Your task to perform on an android device: What's the weather going to be this weekend? Image 0: 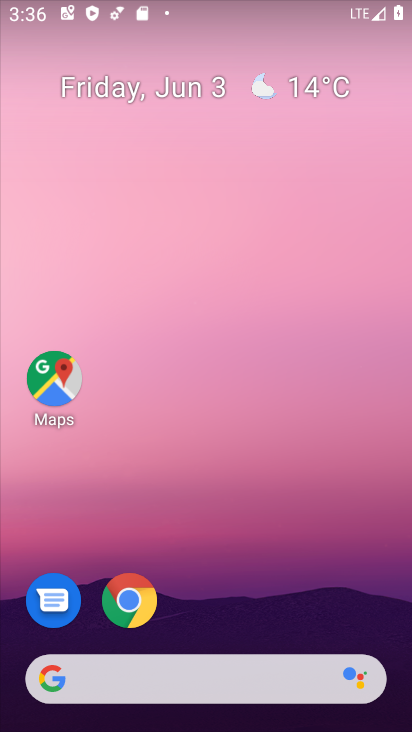
Step 0: drag from (29, 312) to (33, 271)
Your task to perform on an android device: What's the weather going to be this weekend? Image 1: 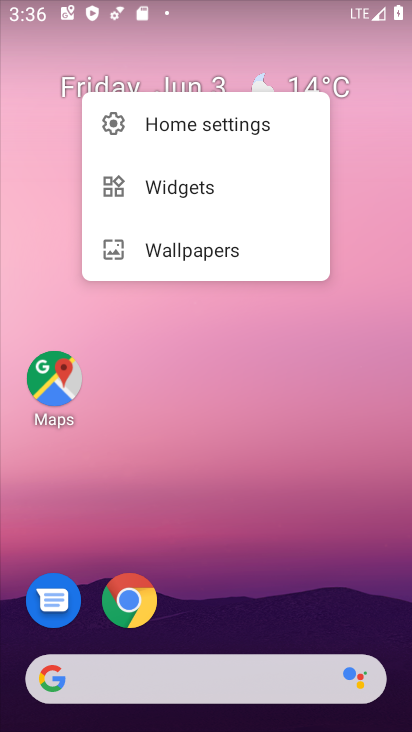
Step 1: click (335, 72)
Your task to perform on an android device: What's the weather going to be this weekend? Image 2: 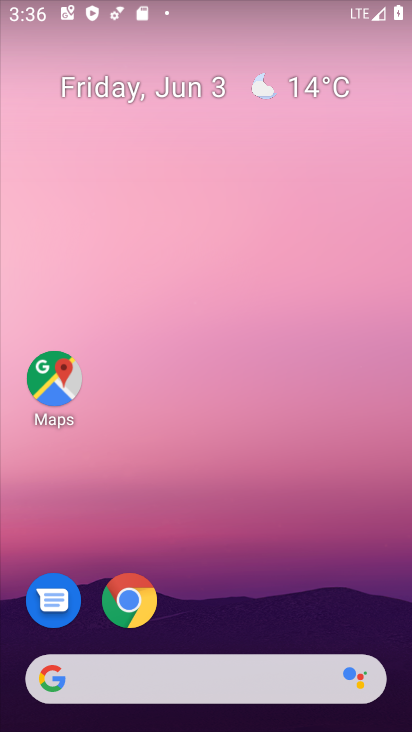
Step 2: click (332, 73)
Your task to perform on an android device: What's the weather going to be this weekend? Image 3: 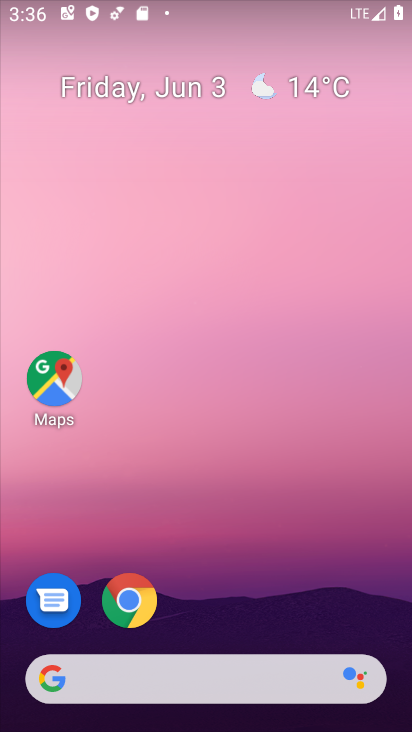
Step 3: click (316, 83)
Your task to perform on an android device: What's the weather going to be this weekend? Image 4: 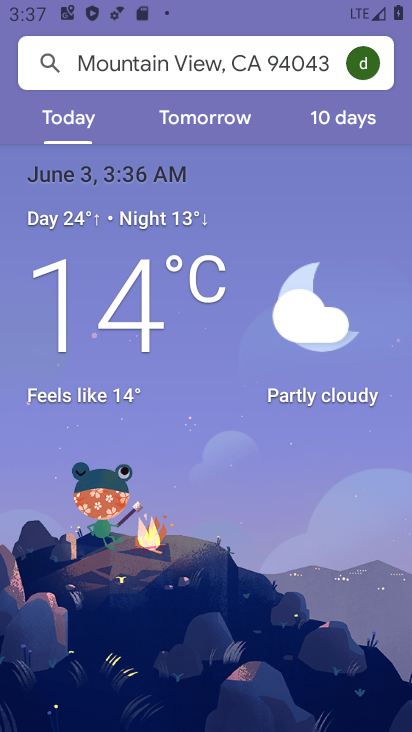
Step 4: click (317, 108)
Your task to perform on an android device: What's the weather going to be this weekend? Image 5: 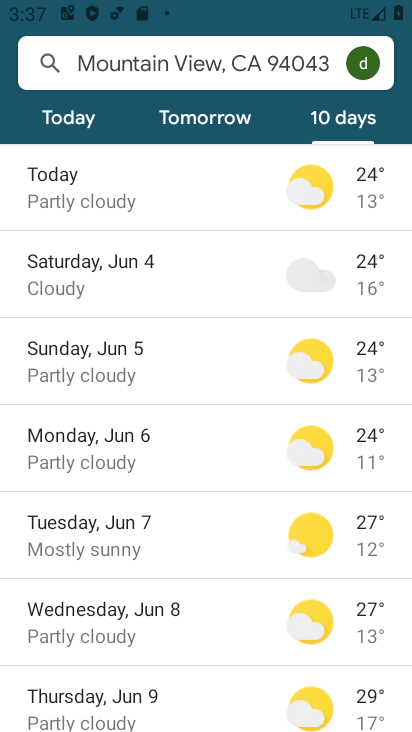
Step 5: task complete